Your task to perform on an android device: open app "PlayWell" Image 0: 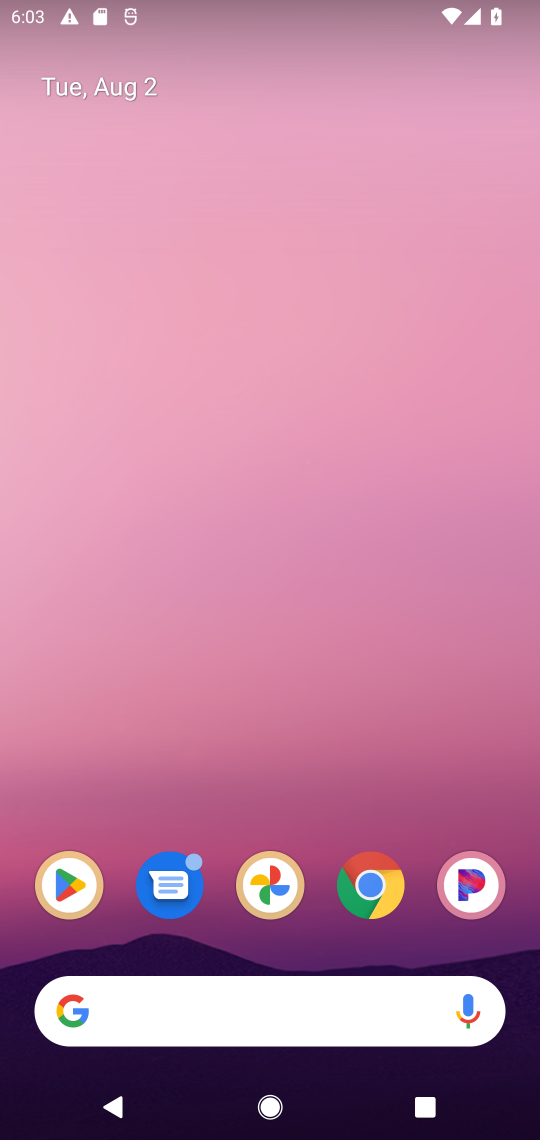
Step 0: press home button
Your task to perform on an android device: open app "PlayWell" Image 1: 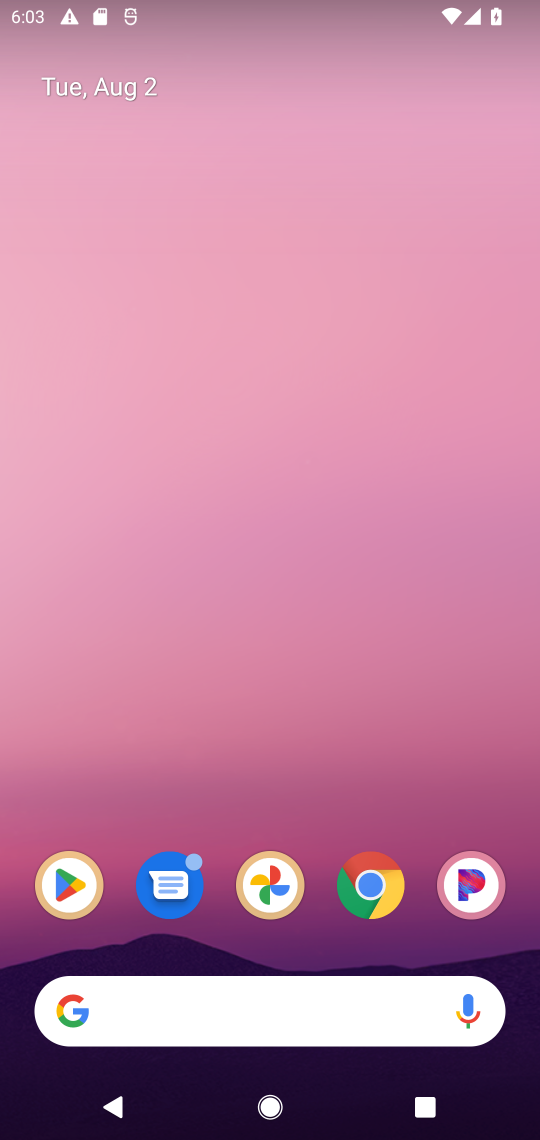
Step 1: drag from (436, 785) to (373, 87)
Your task to perform on an android device: open app "PlayWell" Image 2: 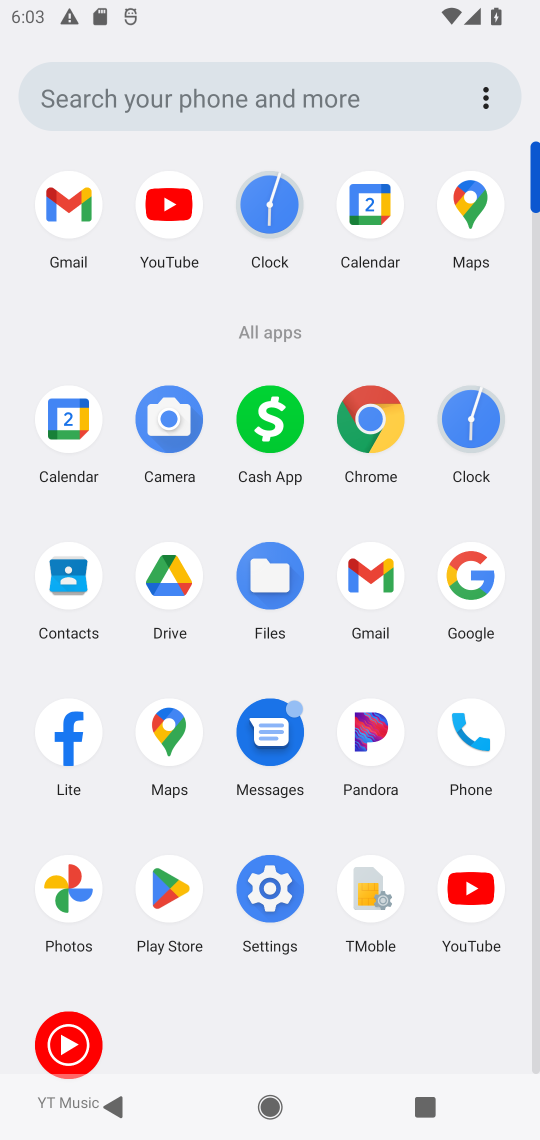
Step 2: click (171, 913)
Your task to perform on an android device: open app "PlayWell" Image 3: 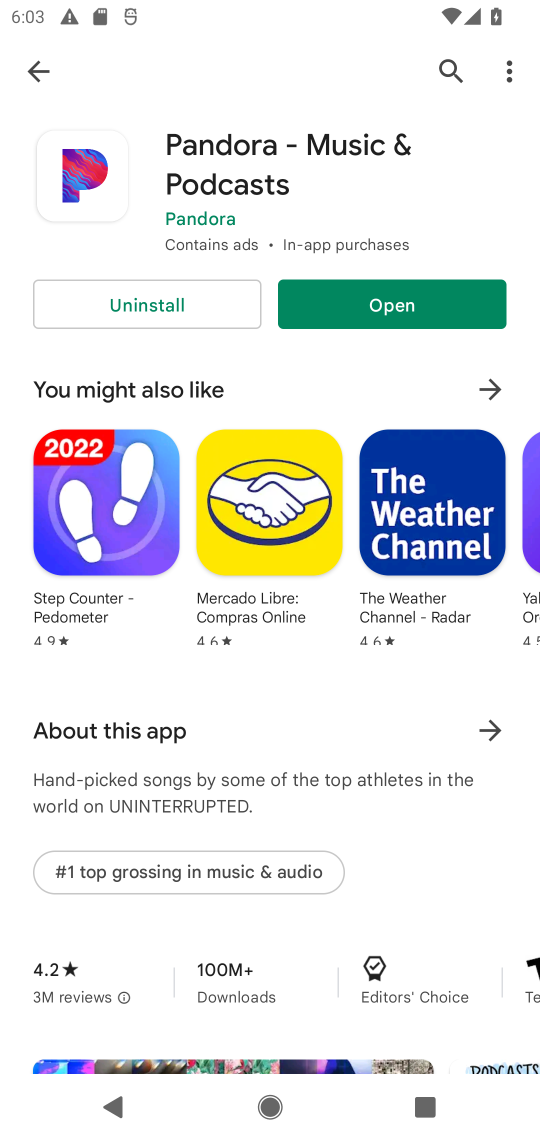
Step 3: click (454, 65)
Your task to perform on an android device: open app "PlayWell" Image 4: 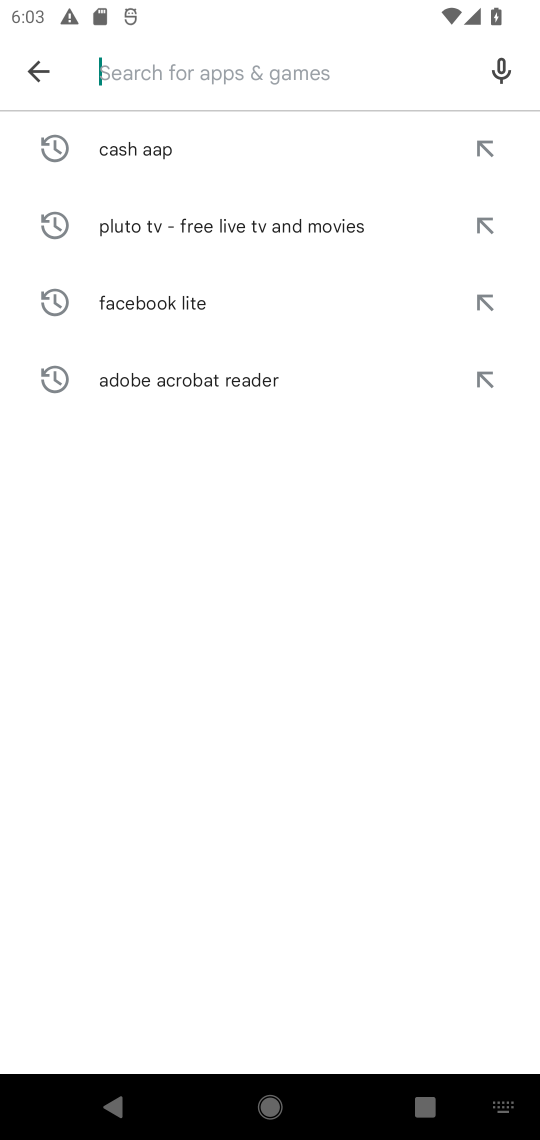
Step 4: type "play well"
Your task to perform on an android device: open app "PlayWell" Image 5: 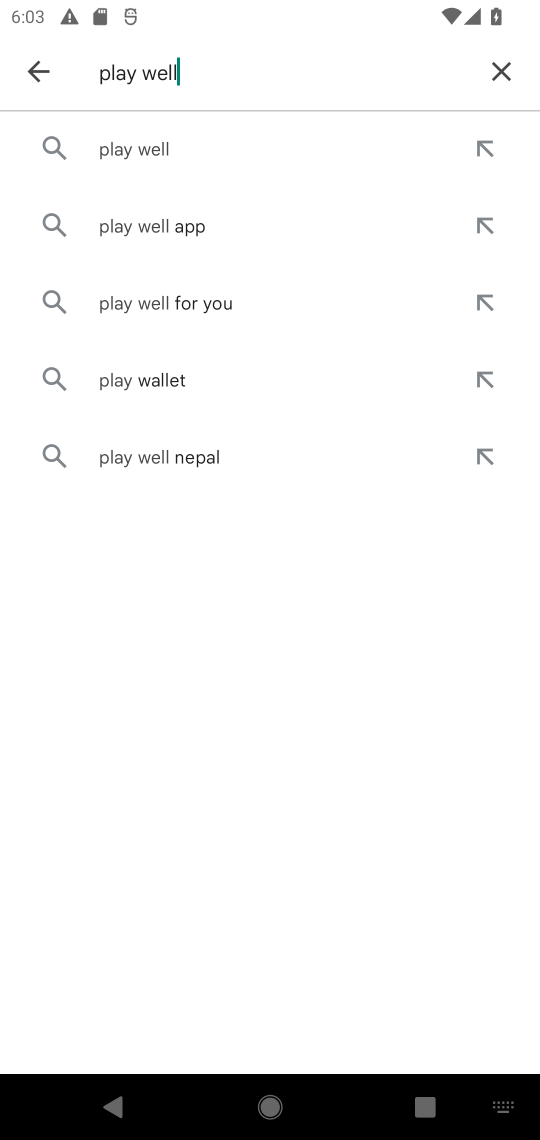
Step 5: click (223, 136)
Your task to perform on an android device: open app "PlayWell" Image 6: 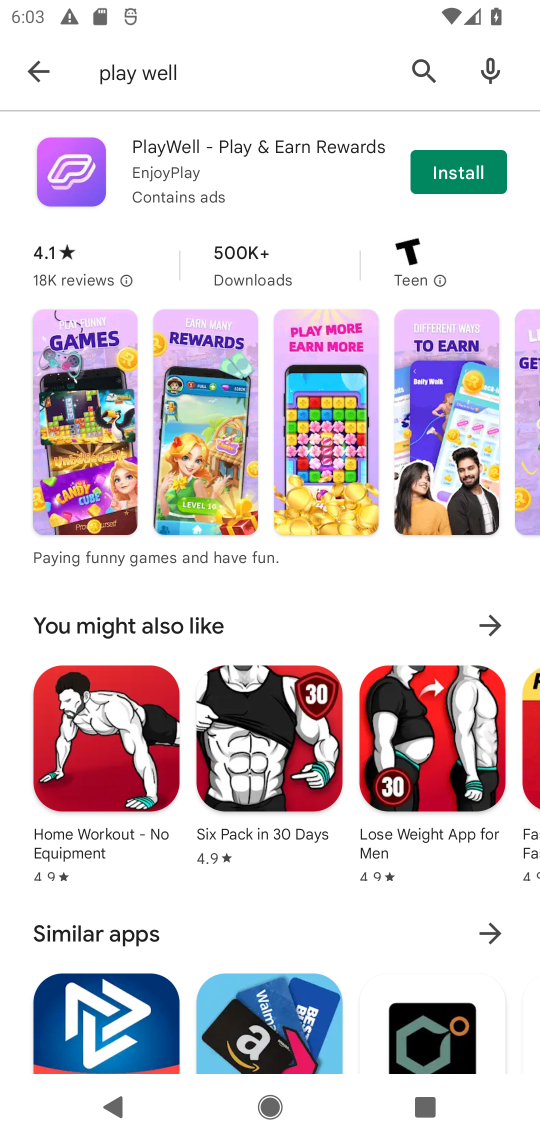
Step 6: task complete